Your task to perform on an android device: open a new tab in the chrome app Image 0: 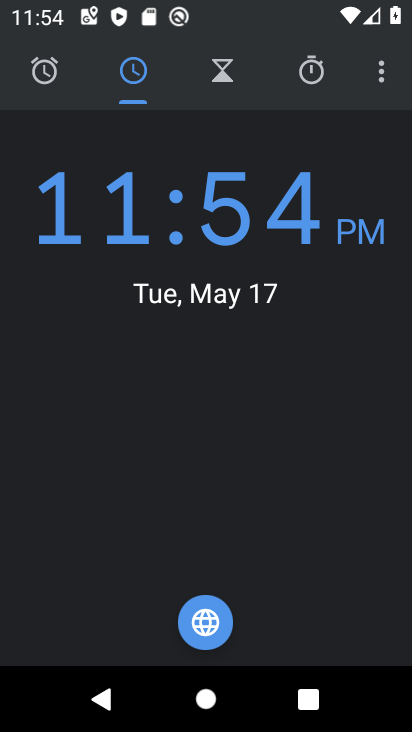
Step 0: press home button
Your task to perform on an android device: open a new tab in the chrome app Image 1: 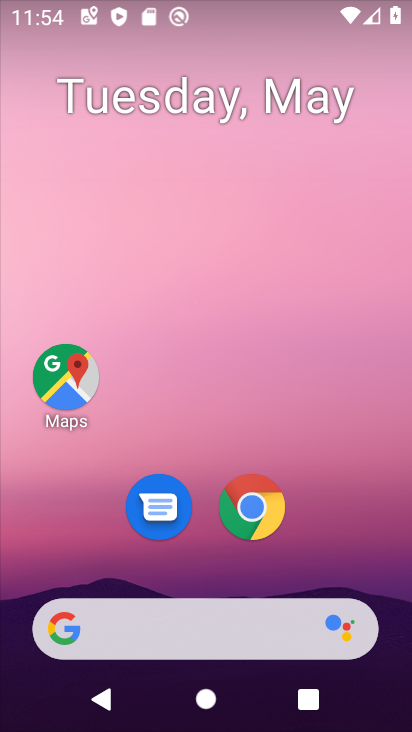
Step 1: click (238, 513)
Your task to perform on an android device: open a new tab in the chrome app Image 2: 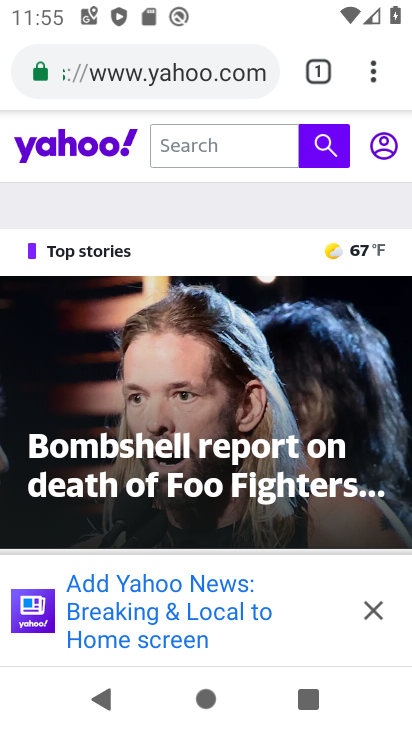
Step 2: click (384, 78)
Your task to perform on an android device: open a new tab in the chrome app Image 3: 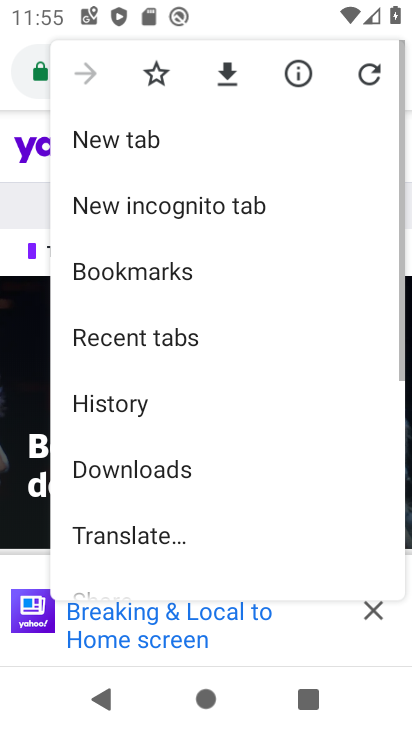
Step 3: click (308, 125)
Your task to perform on an android device: open a new tab in the chrome app Image 4: 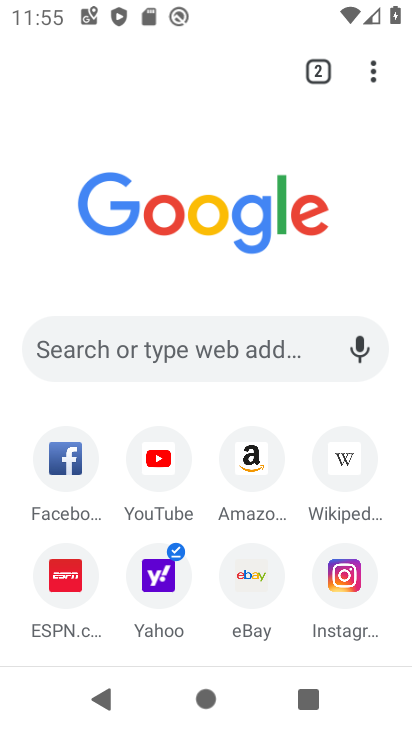
Step 4: task complete